Your task to perform on an android device: turn off sleep mode Image 0: 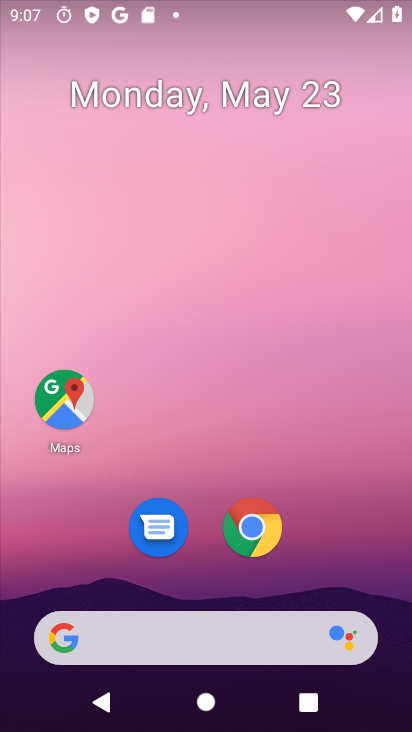
Step 0: drag from (353, 563) to (325, 109)
Your task to perform on an android device: turn off sleep mode Image 1: 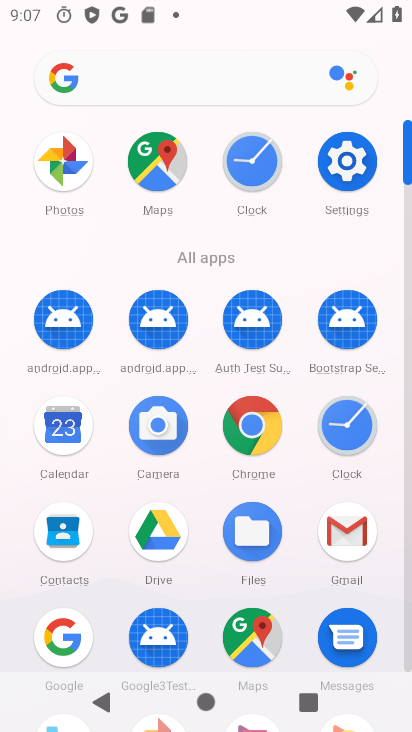
Step 1: click (341, 152)
Your task to perform on an android device: turn off sleep mode Image 2: 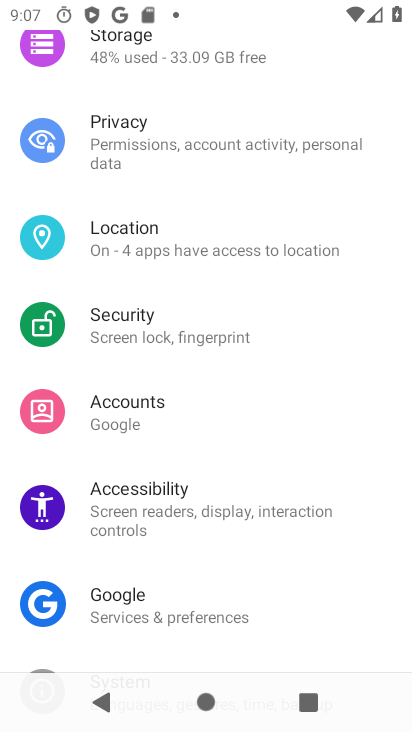
Step 2: drag from (247, 72) to (259, 521)
Your task to perform on an android device: turn off sleep mode Image 3: 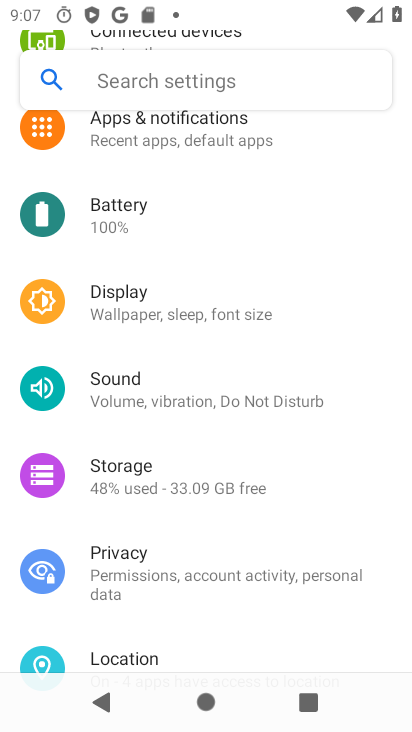
Step 3: click (229, 77)
Your task to perform on an android device: turn off sleep mode Image 4: 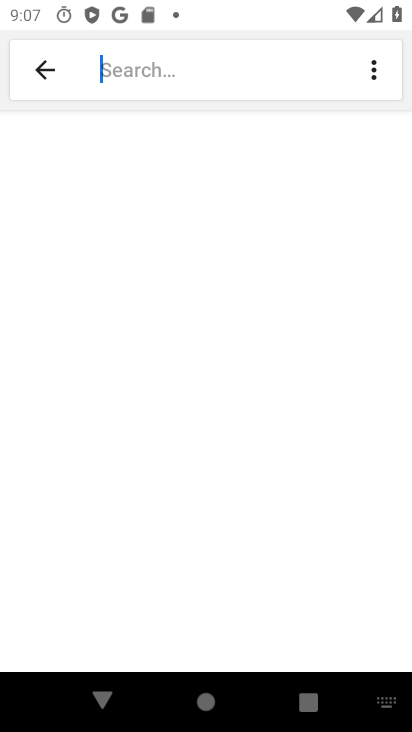
Step 4: type "sleep mode"
Your task to perform on an android device: turn off sleep mode Image 5: 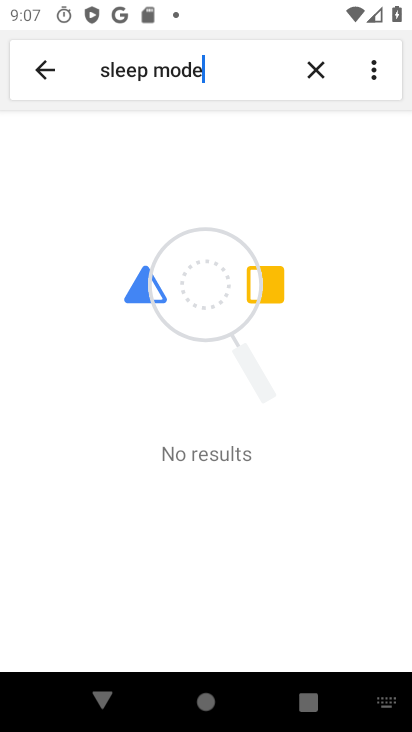
Step 5: task complete